Your task to perform on an android device: clear all cookies in the chrome app Image 0: 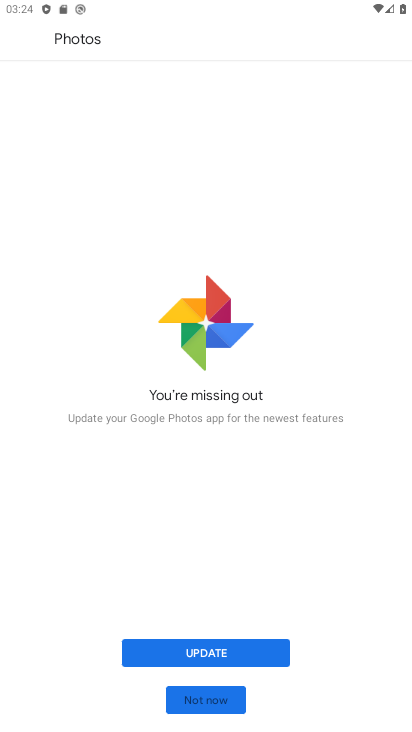
Step 0: press home button
Your task to perform on an android device: clear all cookies in the chrome app Image 1: 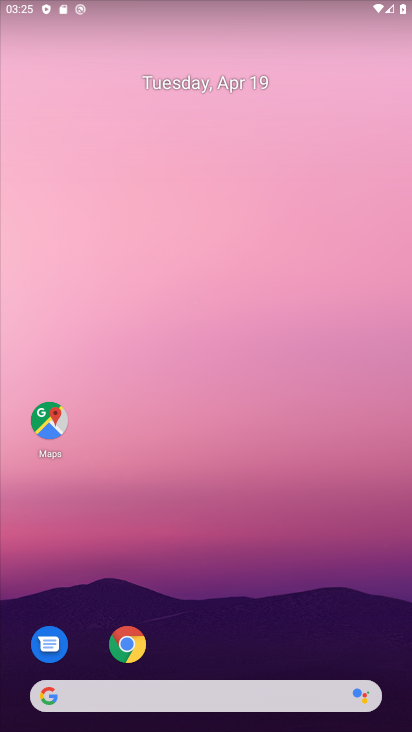
Step 1: click (124, 643)
Your task to perform on an android device: clear all cookies in the chrome app Image 2: 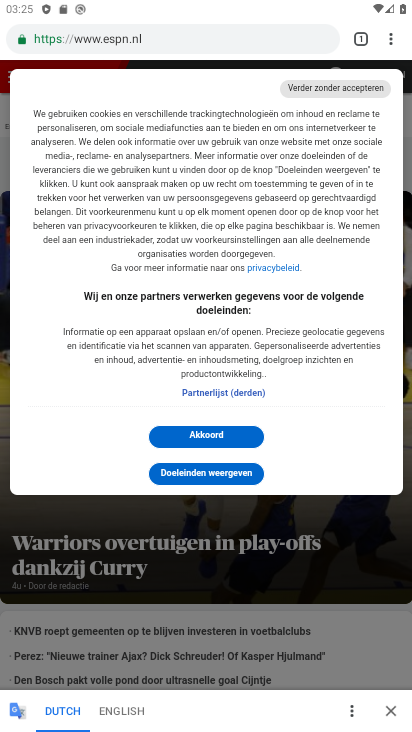
Step 2: click (388, 39)
Your task to perform on an android device: clear all cookies in the chrome app Image 3: 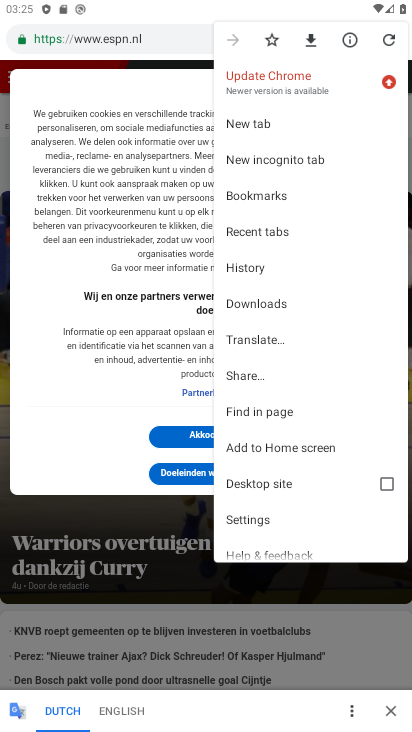
Step 3: click (248, 262)
Your task to perform on an android device: clear all cookies in the chrome app Image 4: 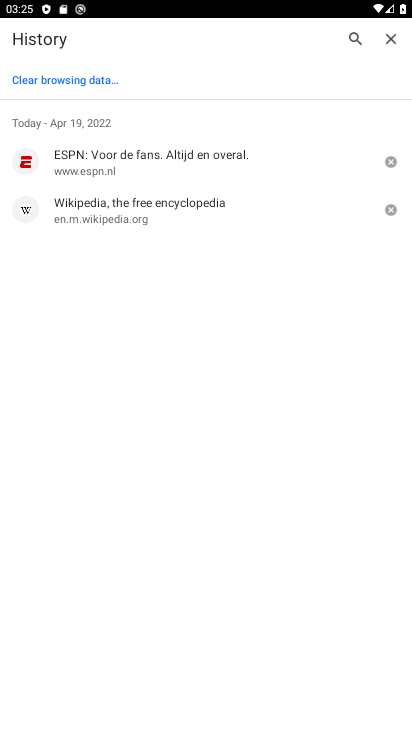
Step 4: click (47, 75)
Your task to perform on an android device: clear all cookies in the chrome app Image 5: 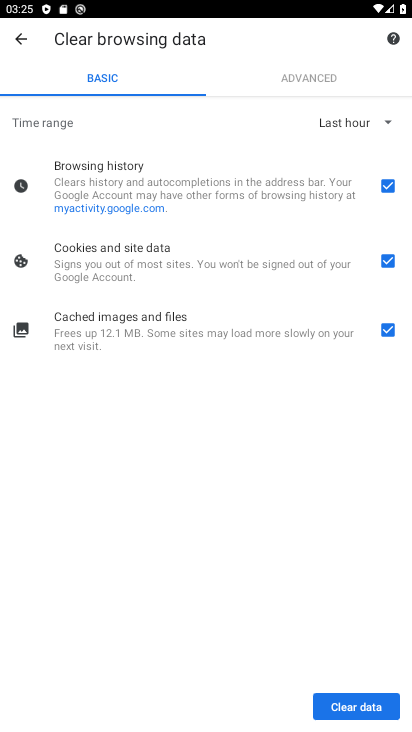
Step 5: click (390, 186)
Your task to perform on an android device: clear all cookies in the chrome app Image 6: 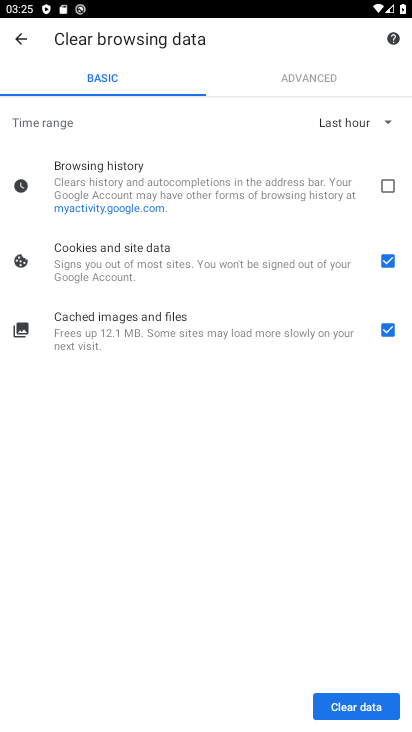
Step 6: click (387, 327)
Your task to perform on an android device: clear all cookies in the chrome app Image 7: 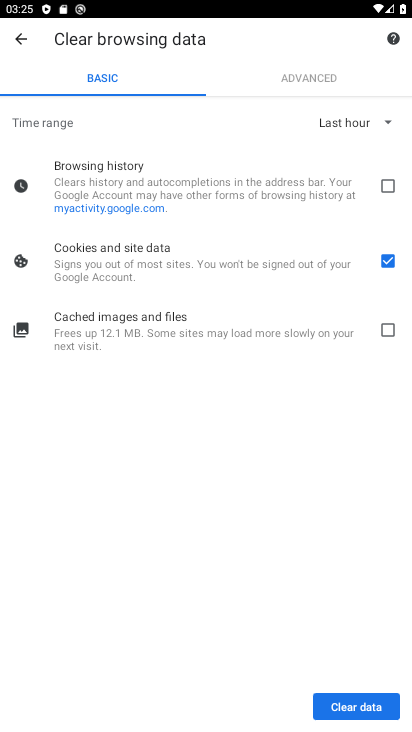
Step 7: click (342, 705)
Your task to perform on an android device: clear all cookies in the chrome app Image 8: 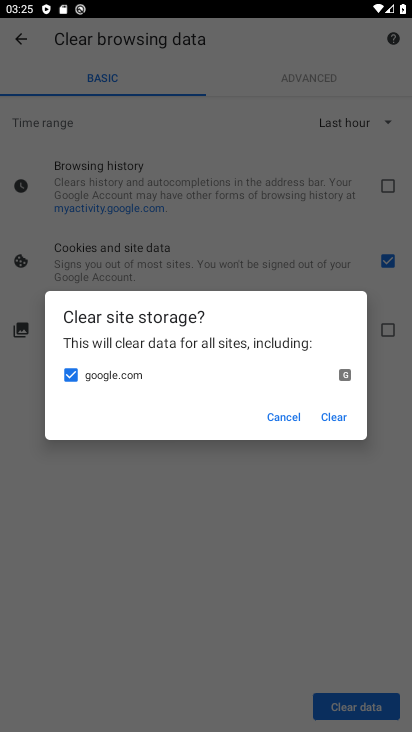
Step 8: click (335, 423)
Your task to perform on an android device: clear all cookies in the chrome app Image 9: 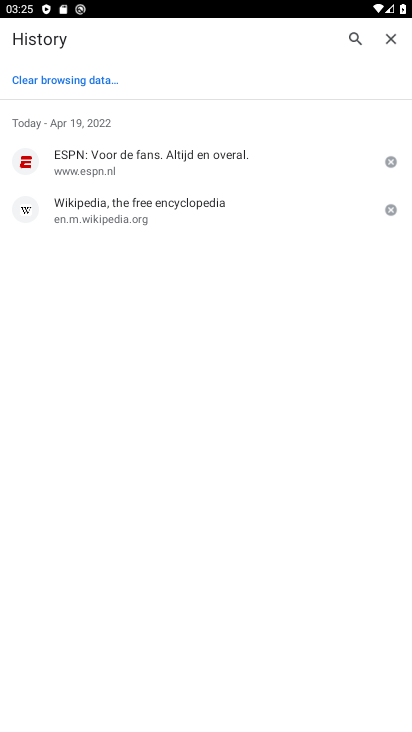
Step 9: task complete